Your task to perform on an android device: Open location settings Image 0: 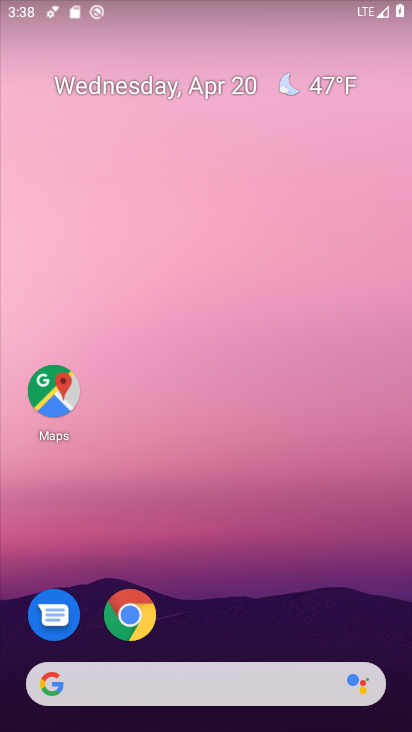
Step 0: drag from (216, 488) to (216, 90)
Your task to perform on an android device: Open location settings Image 1: 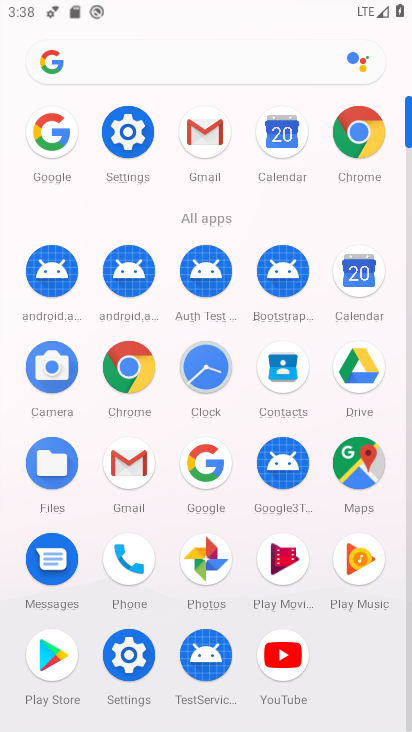
Step 1: click (117, 139)
Your task to perform on an android device: Open location settings Image 2: 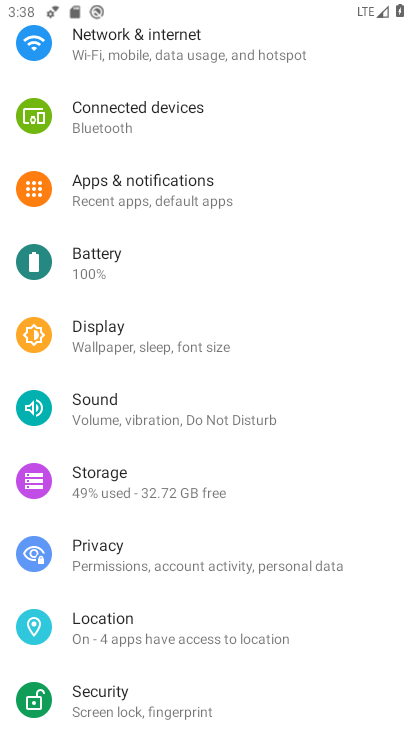
Step 2: click (152, 619)
Your task to perform on an android device: Open location settings Image 3: 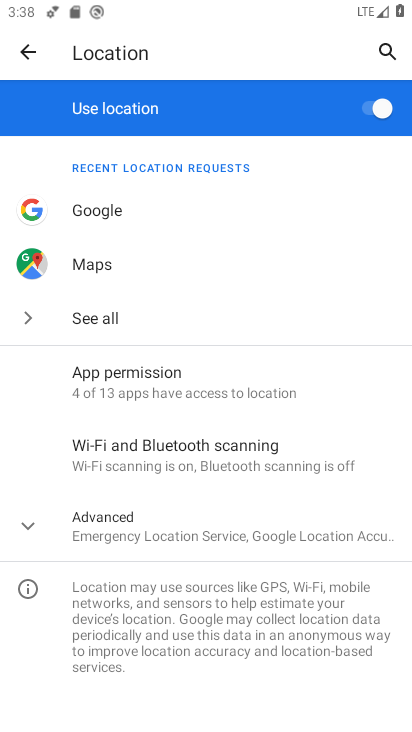
Step 3: task complete